Your task to perform on an android device: change text size in settings app Image 0: 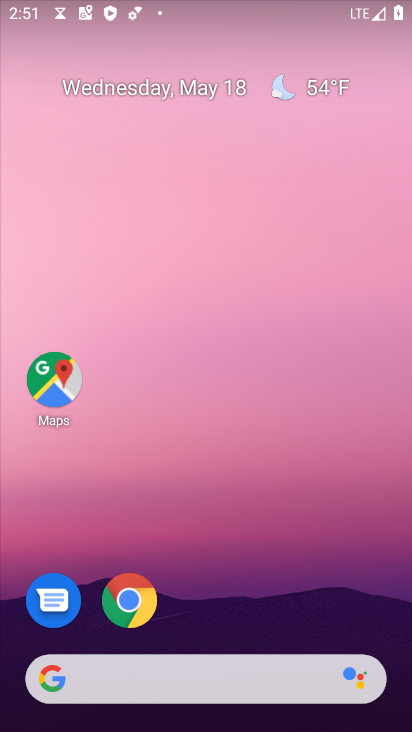
Step 0: press home button
Your task to perform on an android device: change text size in settings app Image 1: 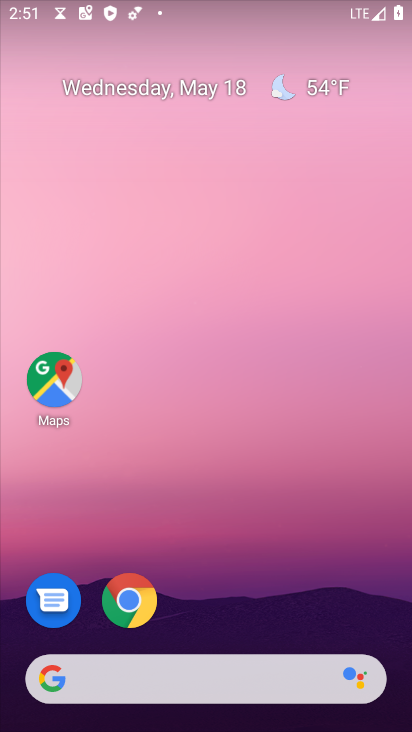
Step 1: drag from (193, 678) to (298, 144)
Your task to perform on an android device: change text size in settings app Image 2: 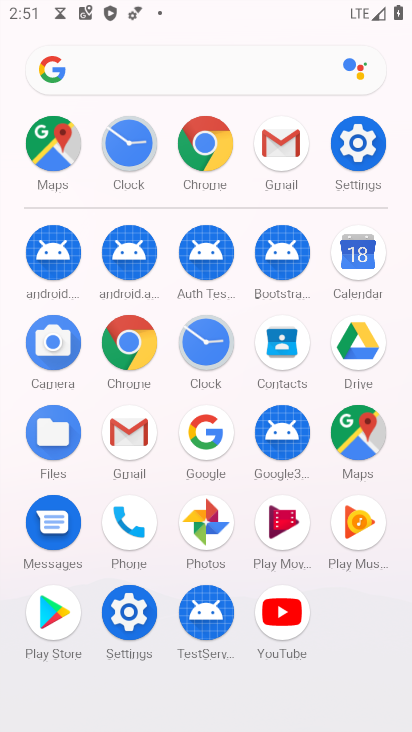
Step 2: click (349, 153)
Your task to perform on an android device: change text size in settings app Image 3: 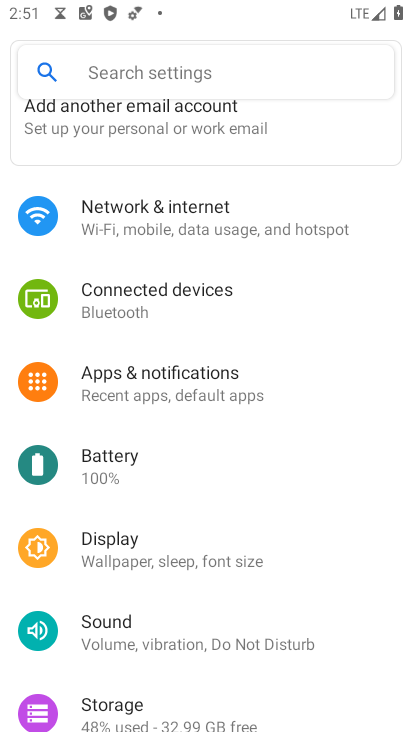
Step 3: click (204, 560)
Your task to perform on an android device: change text size in settings app Image 4: 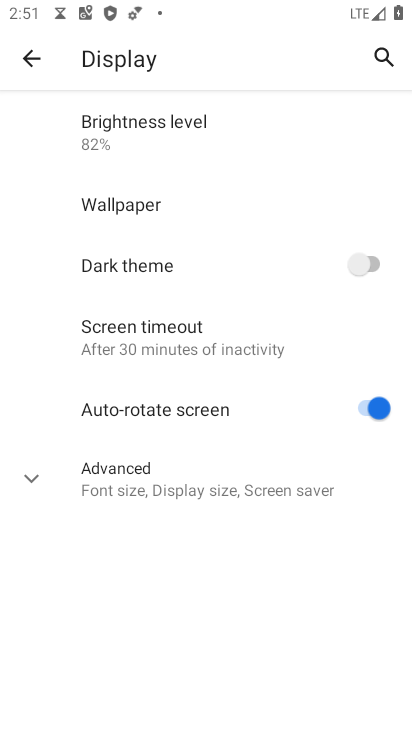
Step 4: click (212, 477)
Your task to perform on an android device: change text size in settings app Image 5: 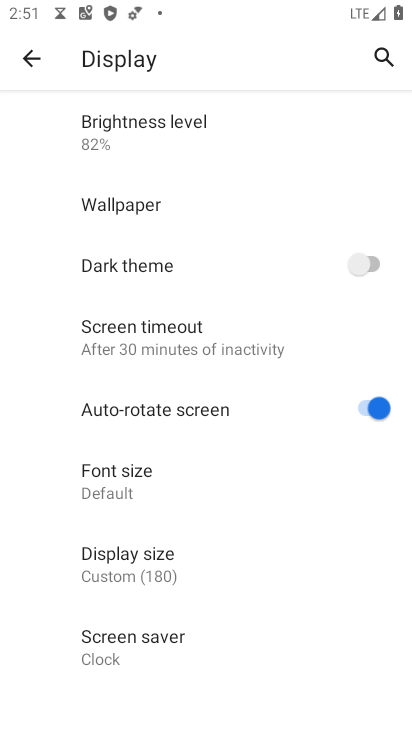
Step 5: click (152, 476)
Your task to perform on an android device: change text size in settings app Image 6: 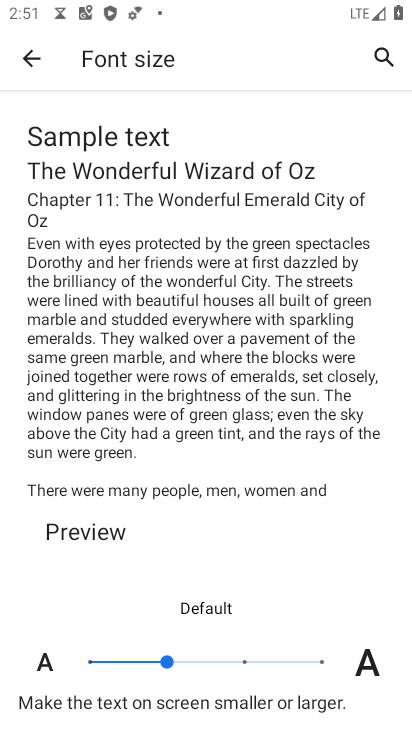
Step 6: click (242, 662)
Your task to perform on an android device: change text size in settings app Image 7: 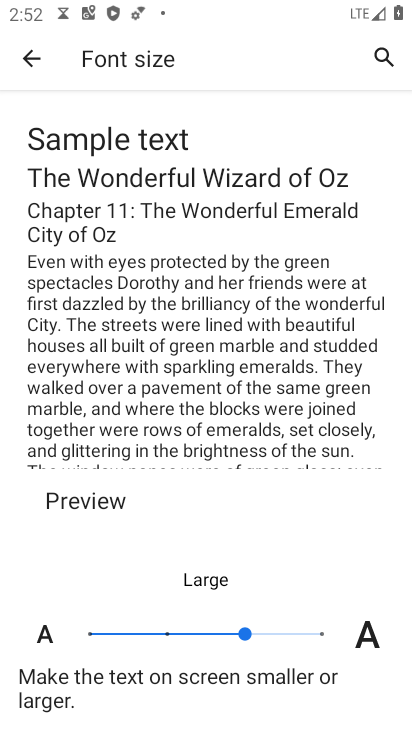
Step 7: task complete